Your task to perform on an android device: Open calendar and show me the second week of next month Image 0: 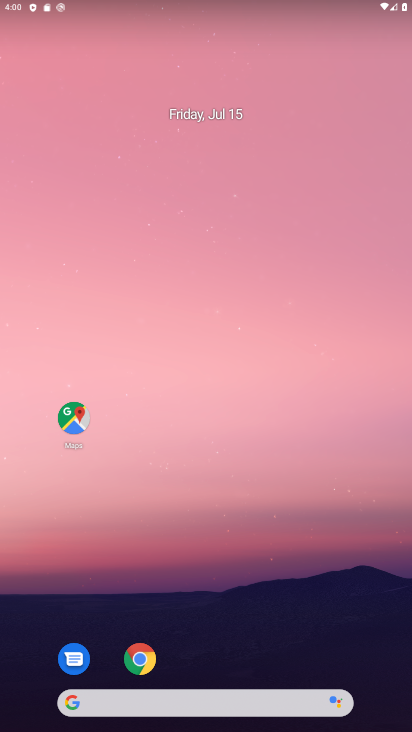
Step 0: drag from (191, 709) to (281, 252)
Your task to perform on an android device: Open calendar and show me the second week of next month Image 1: 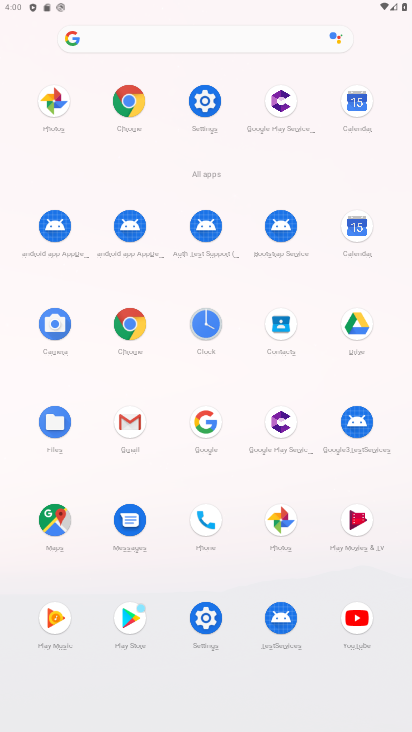
Step 1: click (357, 227)
Your task to perform on an android device: Open calendar and show me the second week of next month Image 2: 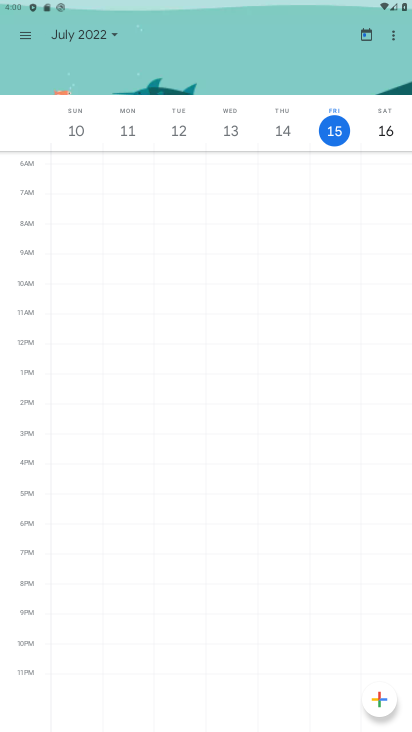
Step 2: click (110, 32)
Your task to perform on an android device: Open calendar and show me the second week of next month Image 3: 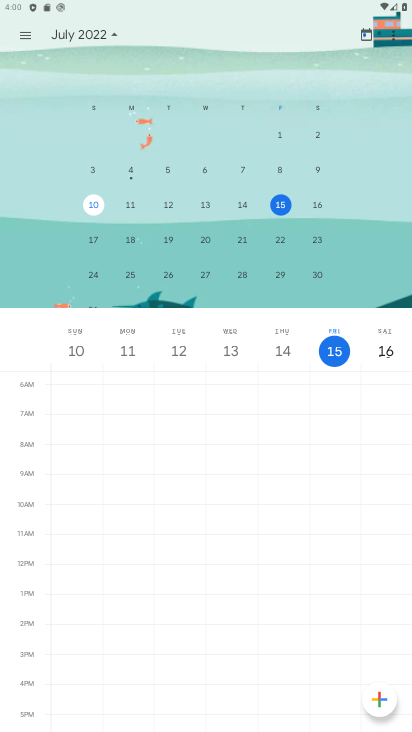
Step 3: drag from (320, 197) to (2, 480)
Your task to perform on an android device: Open calendar and show me the second week of next month Image 4: 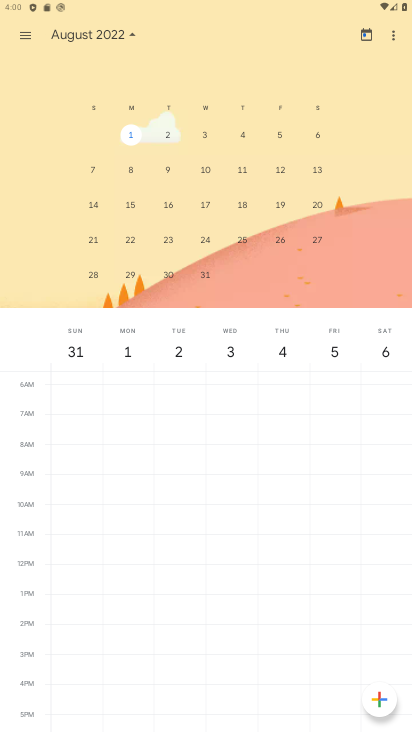
Step 4: click (210, 165)
Your task to perform on an android device: Open calendar and show me the second week of next month Image 5: 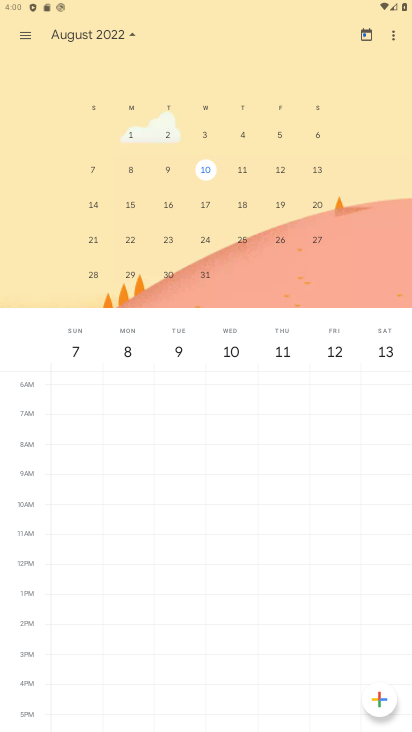
Step 5: task complete